Your task to perform on an android device: Open Youtube and go to "Your channel" Image 0: 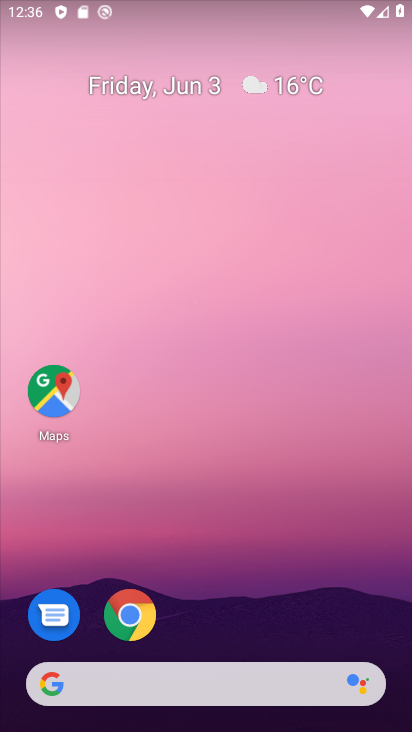
Step 0: drag from (191, 611) to (214, 330)
Your task to perform on an android device: Open Youtube and go to "Your channel" Image 1: 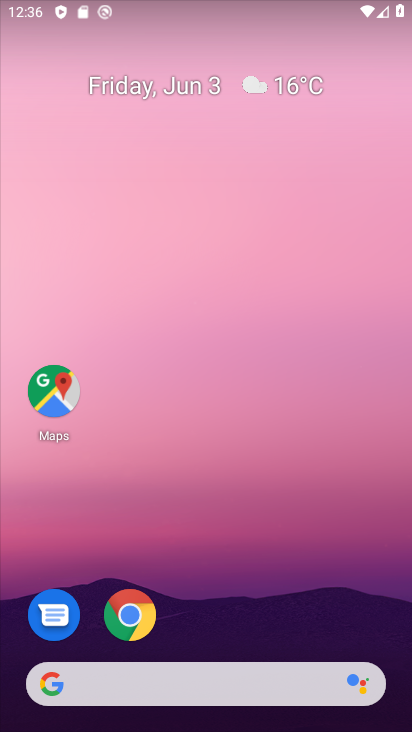
Step 1: drag from (310, 533) to (320, 219)
Your task to perform on an android device: Open Youtube and go to "Your channel" Image 2: 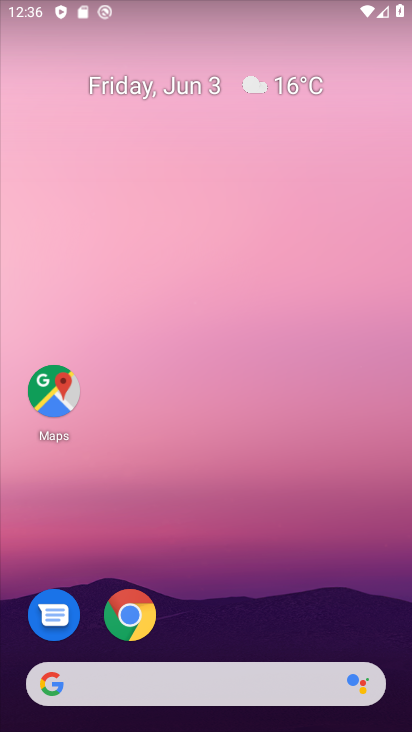
Step 2: drag from (311, 649) to (299, 146)
Your task to perform on an android device: Open Youtube and go to "Your channel" Image 3: 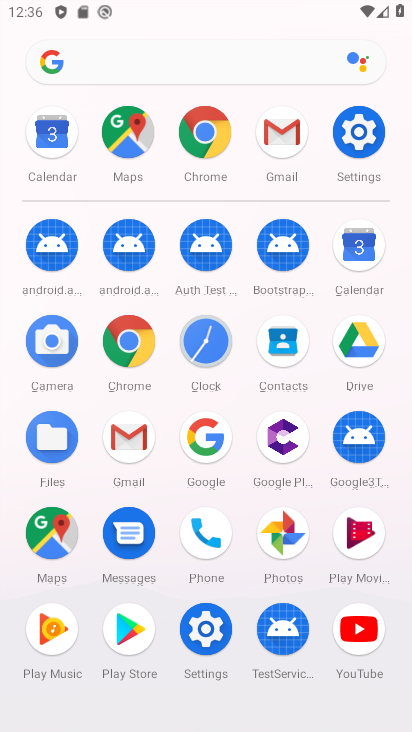
Step 3: click (352, 640)
Your task to perform on an android device: Open Youtube and go to "Your channel" Image 4: 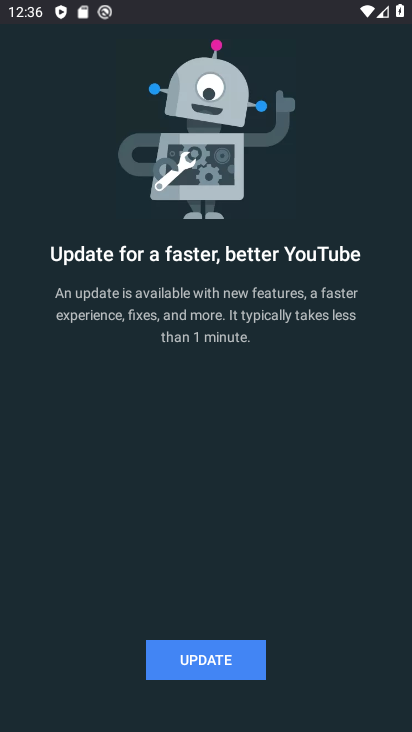
Step 4: task complete